Your task to perform on an android device: empty trash in the gmail app Image 0: 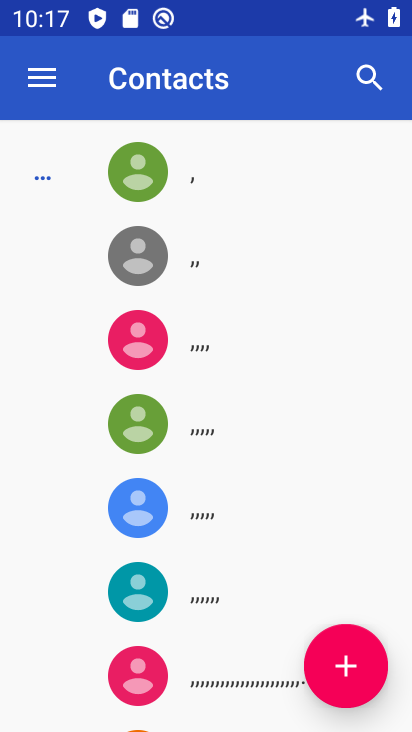
Step 0: press home button
Your task to perform on an android device: empty trash in the gmail app Image 1: 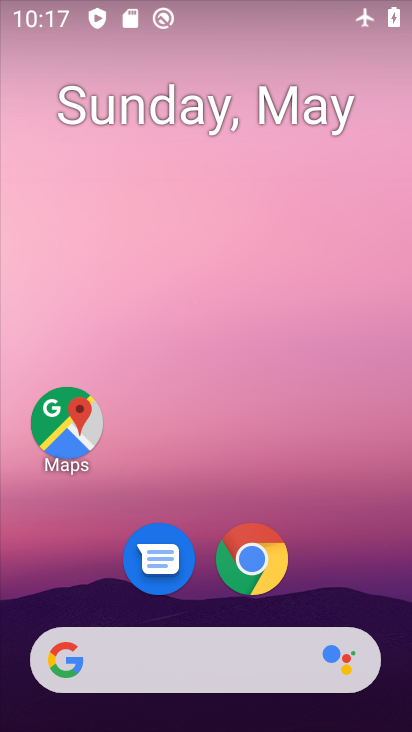
Step 1: drag from (337, 543) to (385, 107)
Your task to perform on an android device: empty trash in the gmail app Image 2: 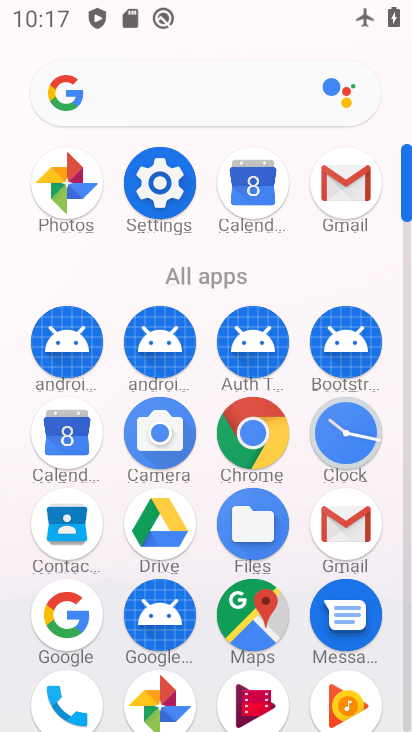
Step 2: click (338, 514)
Your task to perform on an android device: empty trash in the gmail app Image 3: 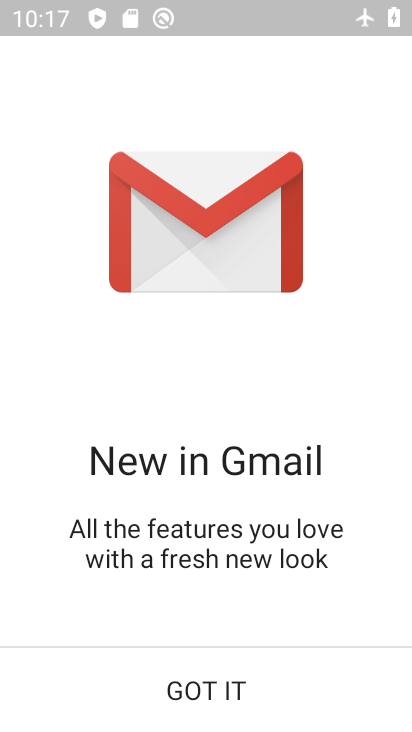
Step 3: click (193, 705)
Your task to perform on an android device: empty trash in the gmail app Image 4: 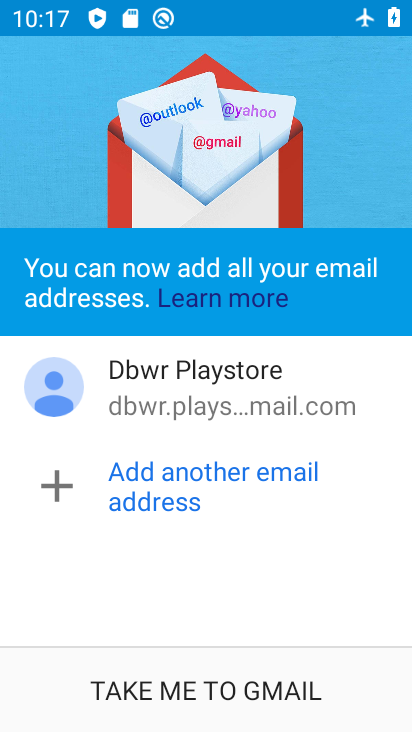
Step 4: click (67, 664)
Your task to perform on an android device: empty trash in the gmail app Image 5: 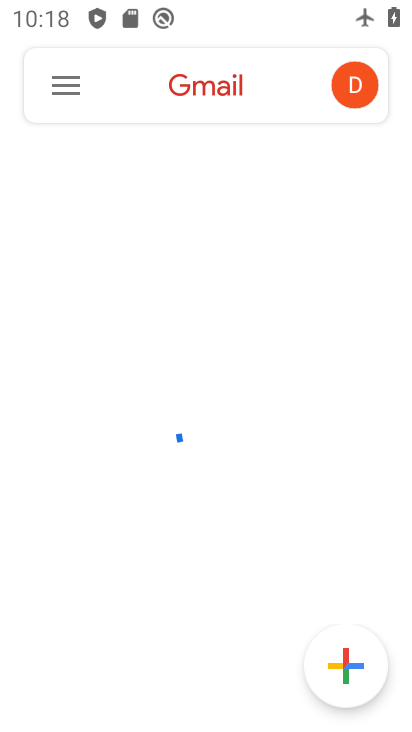
Step 5: click (76, 84)
Your task to perform on an android device: empty trash in the gmail app Image 6: 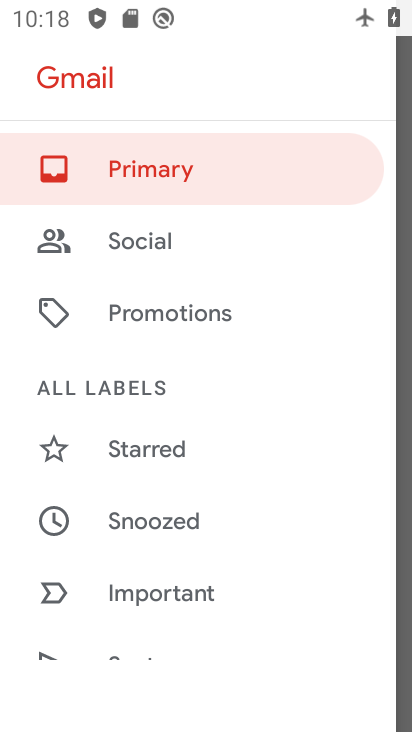
Step 6: drag from (330, 616) to (234, 201)
Your task to perform on an android device: empty trash in the gmail app Image 7: 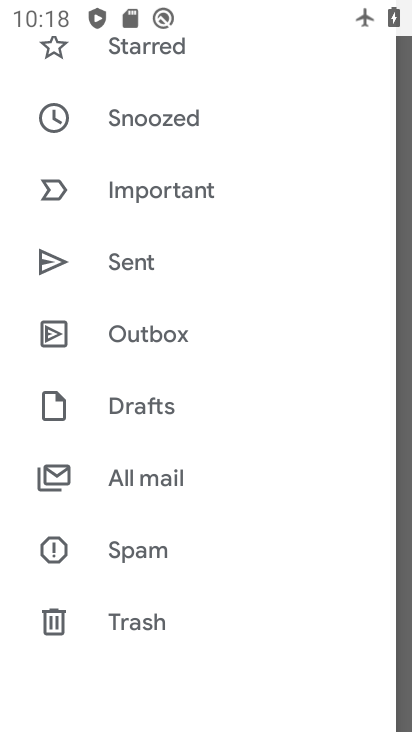
Step 7: click (183, 612)
Your task to perform on an android device: empty trash in the gmail app Image 8: 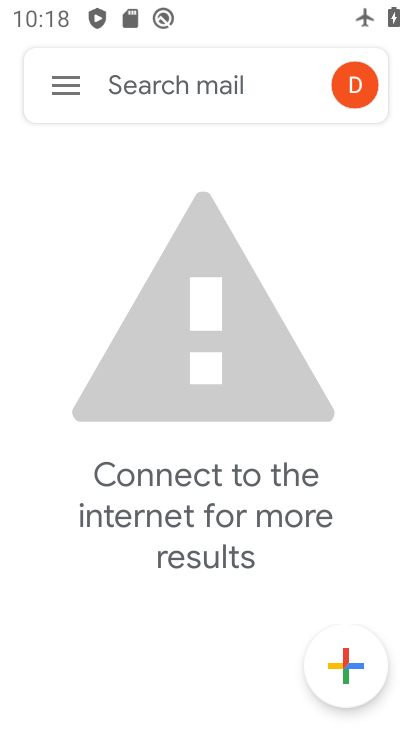
Step 8: click (31, 80)
Your task to perform on an android device: empty trash in the gmail app Image 9: 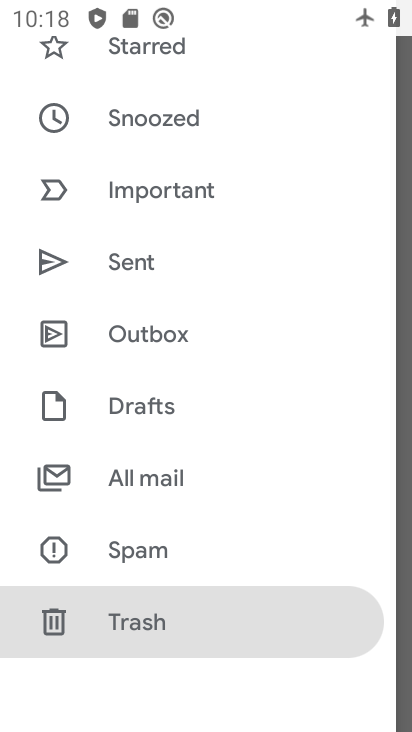
Step 9: click (236, 600)
Your task to perform on an android device: empty trash in the gmail app Image 10: 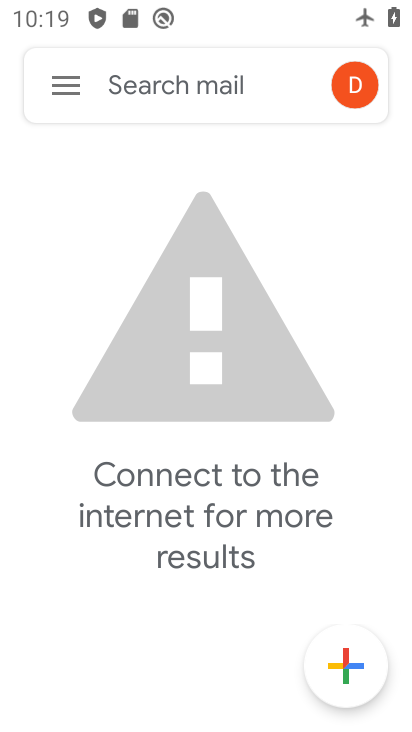
Step 10: task complete